Your task to perform on an android device: Search for Italian restaurants on Maps Image 0: 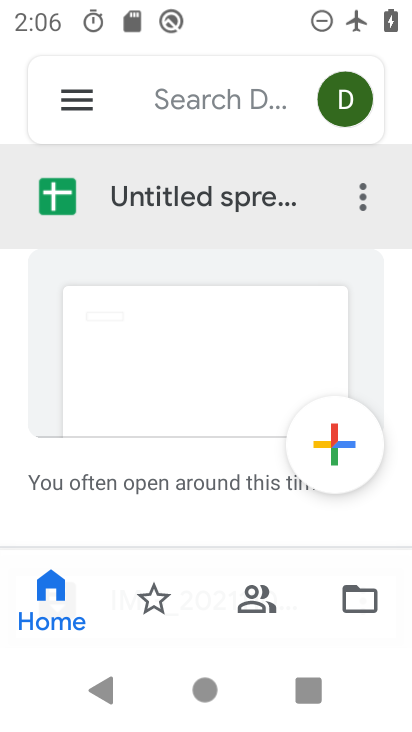
Step 0: press home button
Your task to perform on an android device: Search for Italian restaurants on Maps Image 1: 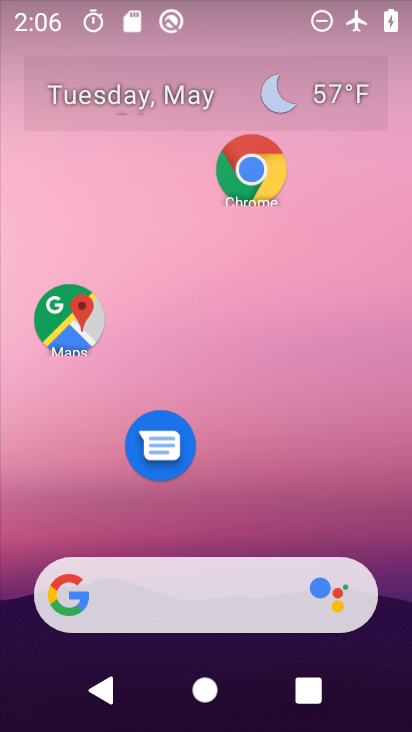
Step 1: drag from (215, 722) to (218, 109)
Your task to perform on an android device: Search for Italian restaurants on Maps Image 2: 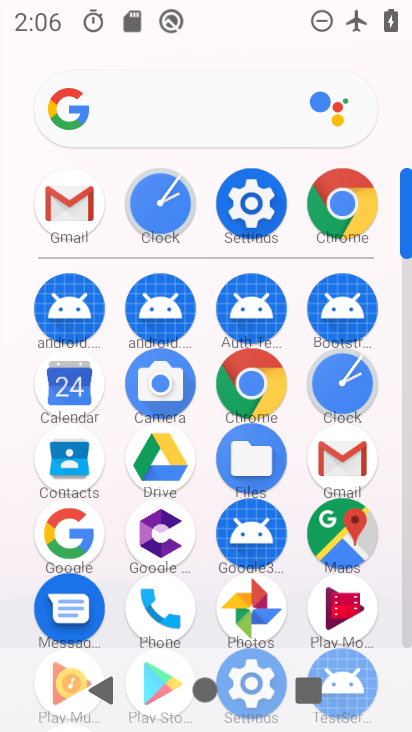
Step 2: click (343, 523)
Your task to perform on an android device: Search for Italian restaurants on Maps Image 3: 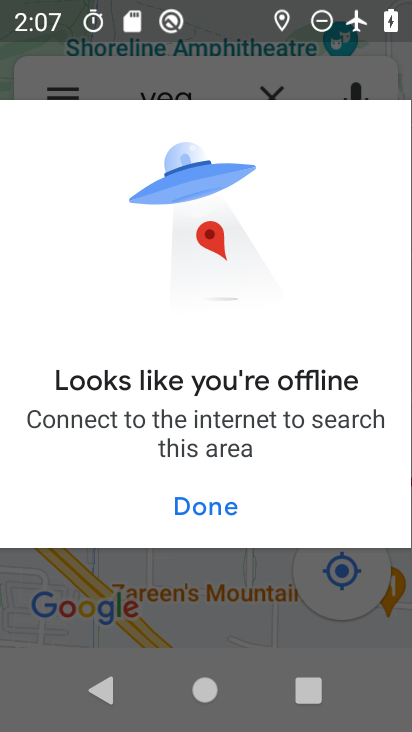
Step 3: click (196, 500)
Your task to perform on an android device: Search for Italian restaurants on Maps Image 4: 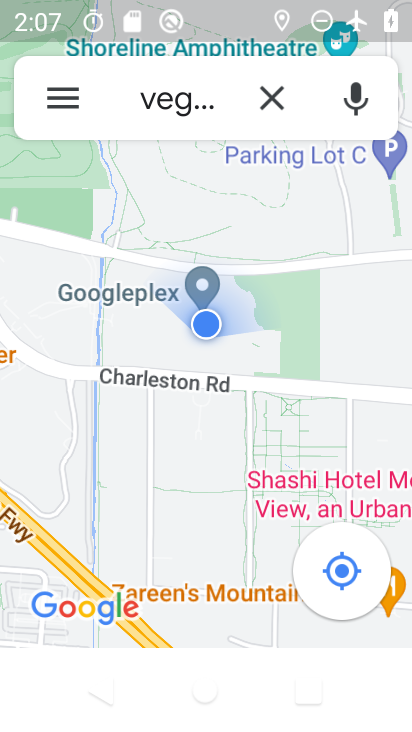
Step 4: task complete